Your task to perform on an android device: What is the recent news? Image 0: 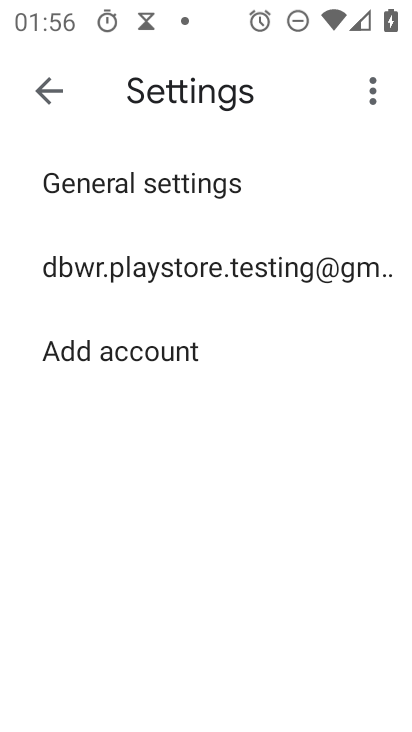
Step 0: press home button
Your task to perform on an android device: What is the recent news? Image 1: 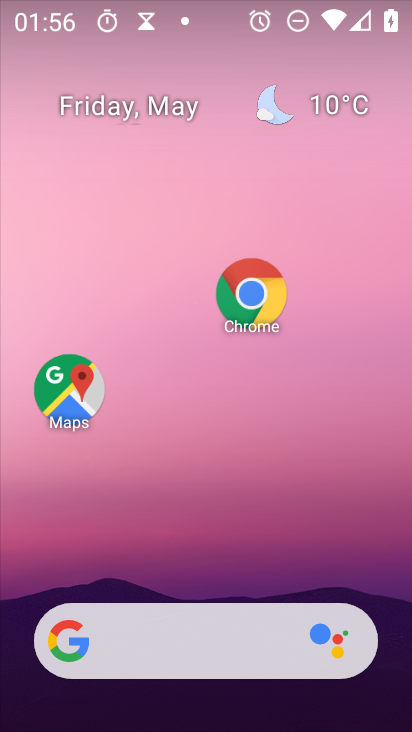
Step 1: click (84, 645)
Your task to perform on an android device: What is the recent news? Image 2: 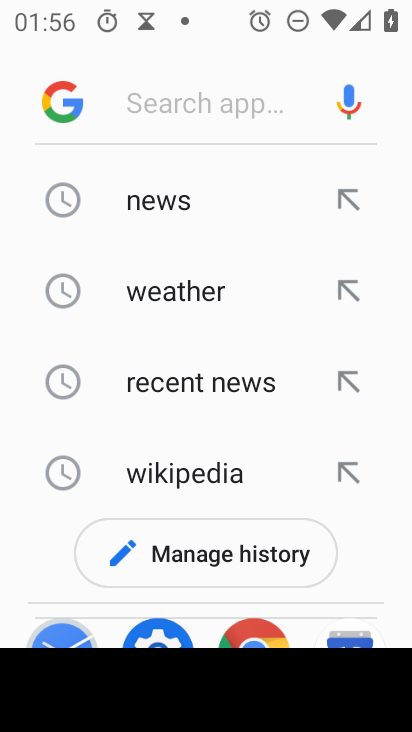
Step 2: click (214, 381)
Your task to perform on an android device: What is the recent news? Image 3: 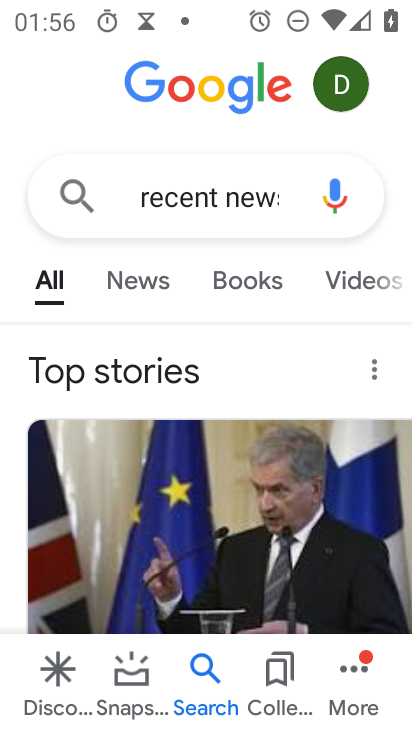
Step 3: click (145, 284)
Your task to perform on an android device: What is the recent news? Image 4: 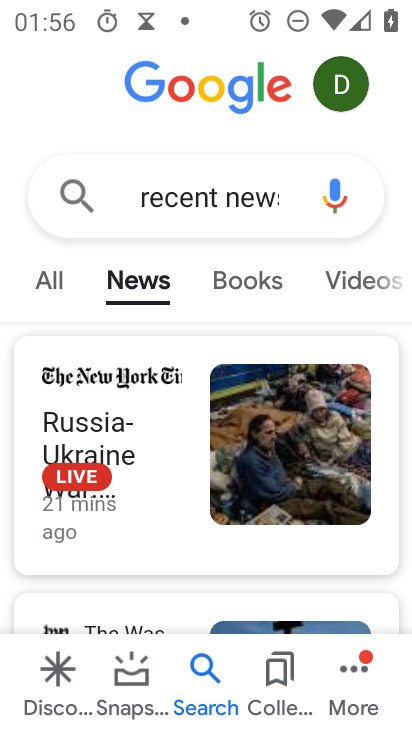
Step 4: task complete